Your task to perform on an android device: What's the weather going to be tomorrow? Image 0: 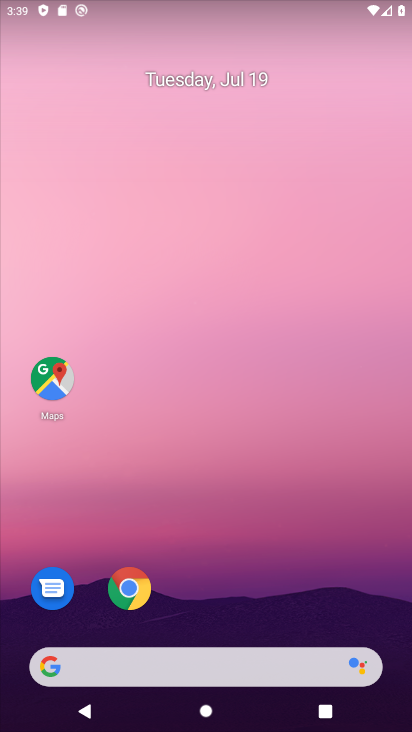
Step 0: click (140, 594)
Your task to perform on an android device: What's the weather going to be tomorrow? Image 1: 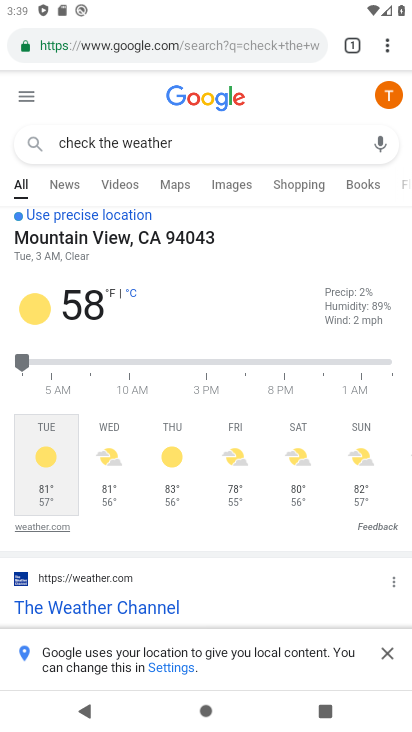
Step 1: click (209, 36)
Your task to perform on an android device: What's the weather going to be tomorrow? Image 2: 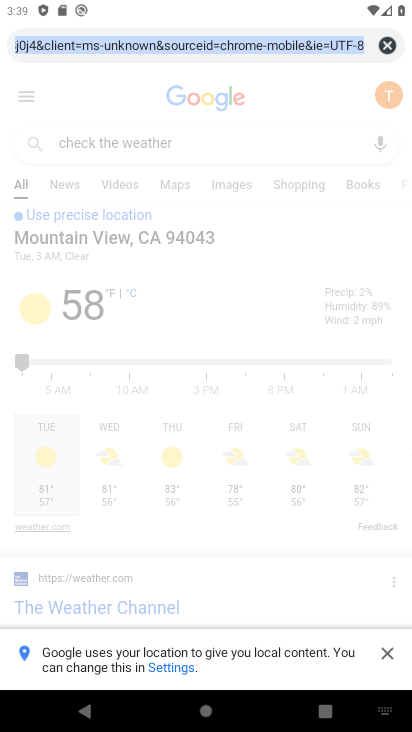
Step 2: type "What's the weather going to be tomorrow?"
Your task to perform on an android device: What's the weather going to be tomorrow? Image 3: 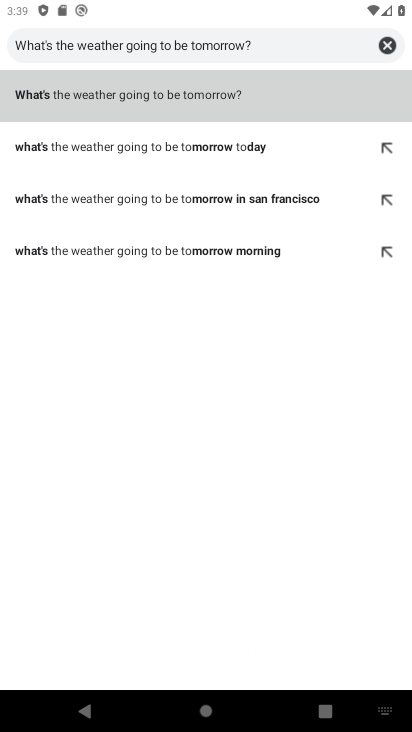
Step 3: click (225, 93)
Your task to perform on an android device: What's the weather going to be tomorrow? Image 4: 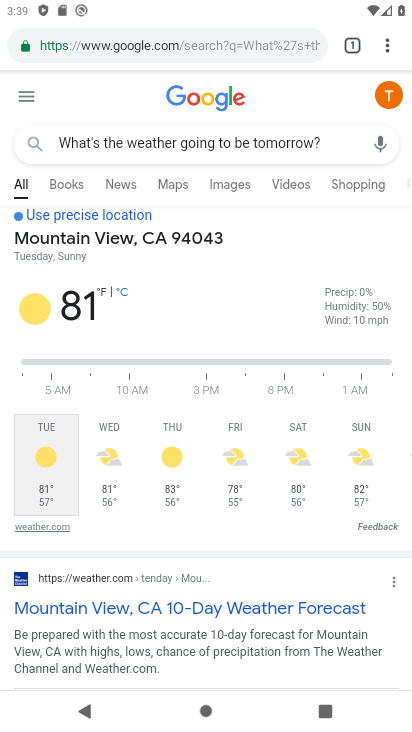
Step 4: task complete